Your task to perform on an android device: Open Google Maps Image 0: 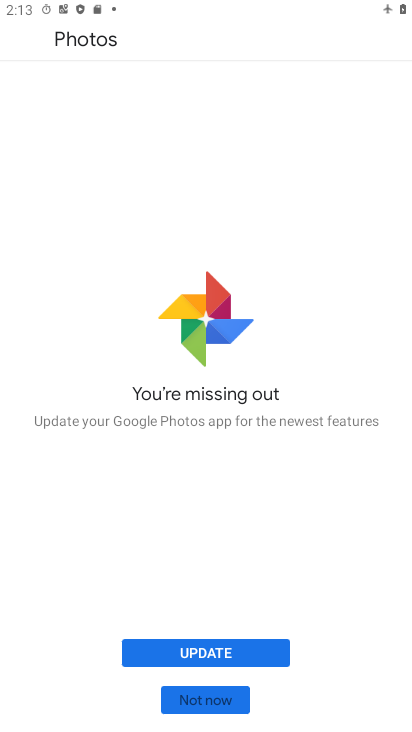
Step 0: press home button
Your task to perform on an android device: Open Google Maps Image 1: 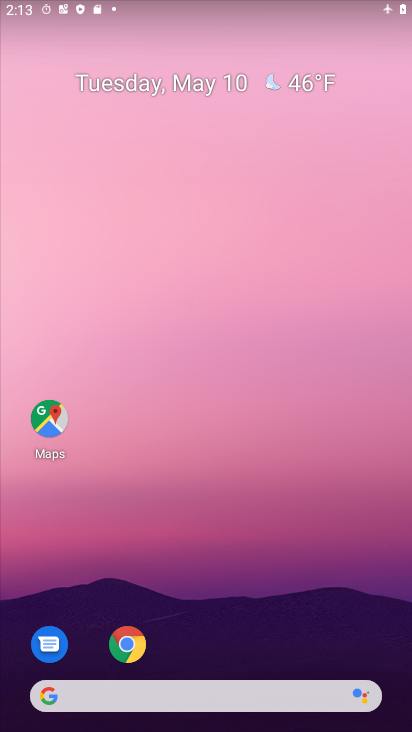
Step 1: drag from (243, 631) to (260, 275)
Your task to perform on an android device: Open Google Maps Image 2: 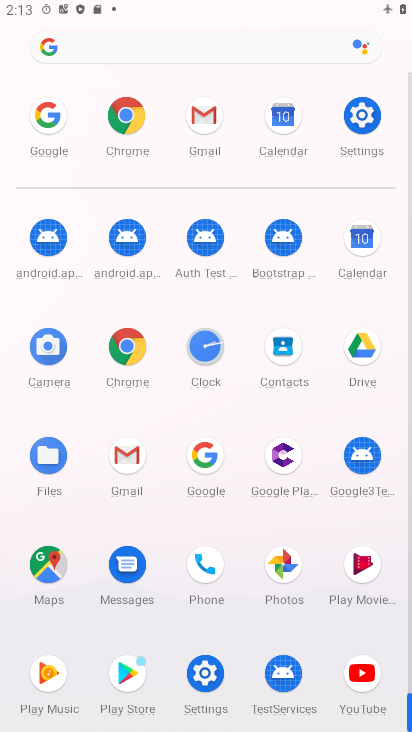
Step 2: click (48, 576)
Your task to perform on an android device: Open Google Maps Image 3: 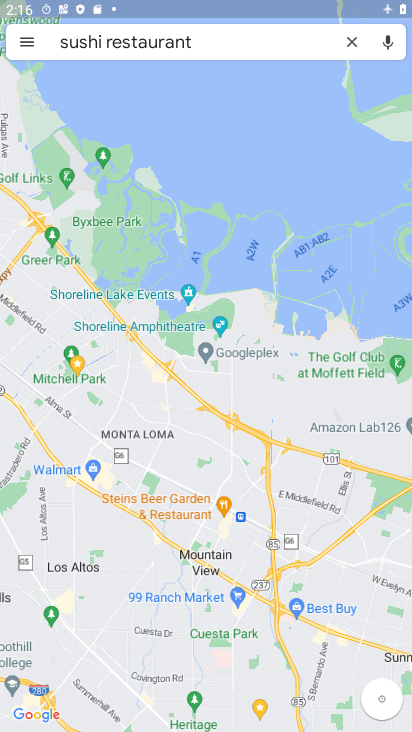
Step 3: task complete